Your task to perform on an android device: add a contact in the contacts app Image 0: 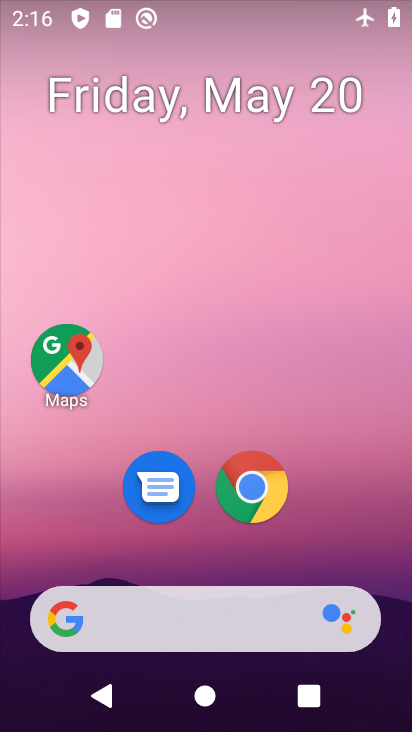
Step 0: drag from (224, 568) to (161, 261)
Your task to perform on an android device: add a contact in the contacts app Image 1: 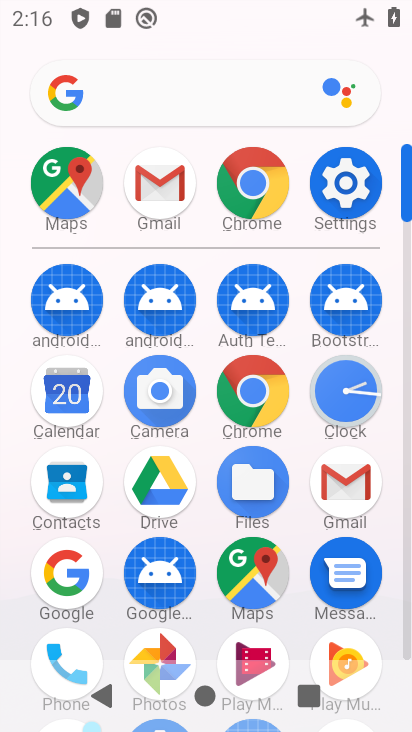
Step 1: click (72, 484)
Your task to perform on an android device: add a contact in the contacts app Image 2: 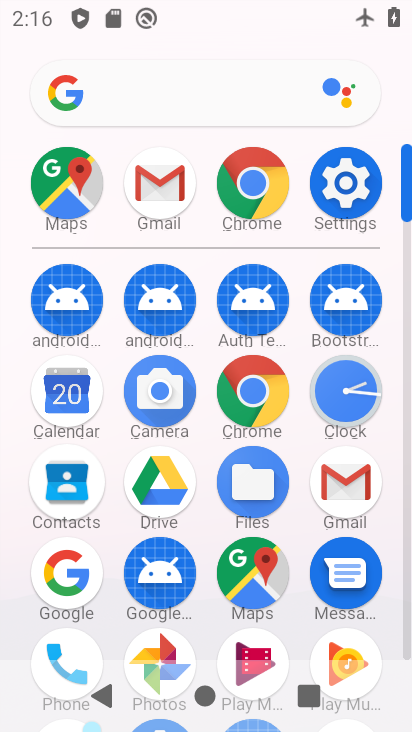
Step 2: click (69, 487)
Your task to perform on an android device: add a contact in the contacts app Image 3: 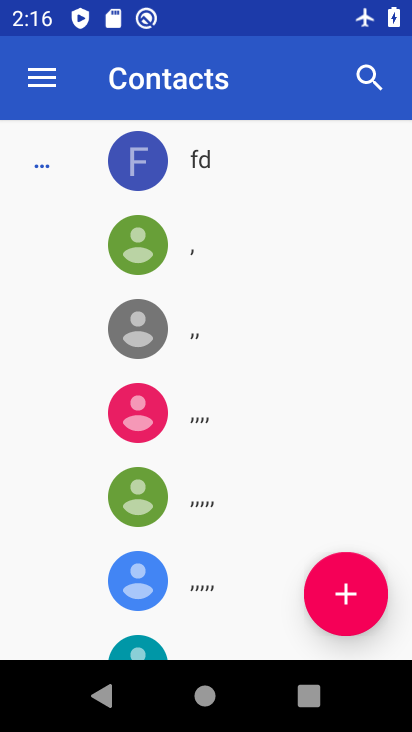
Step 3: click (343, 593)
Your task to perform on an android device: add a contact in the contacts app Image 4: 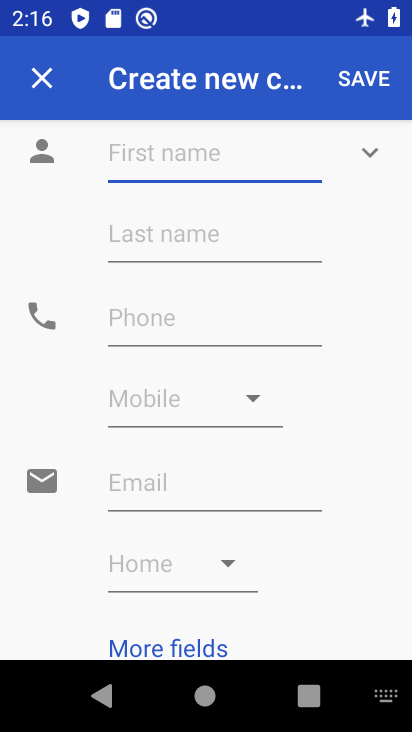
Step 4: type "bjhhhbjhbjhjhbhbas"
Your task to perform on an android device: add a contact in the contacts app Image 5: 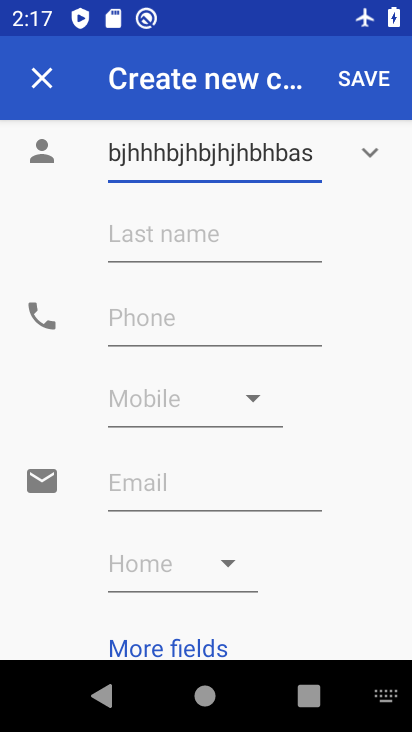
Step 5: click (131, 330)
Your task to perform on an android device: add a contact in the contacts app Image 6: 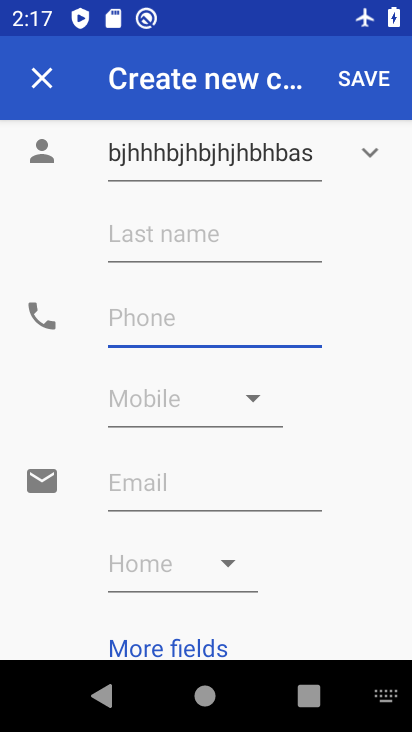
Step 6: type "873873783733798"
Your task to perform on an android device: add a contact in the contacts app Image 7: 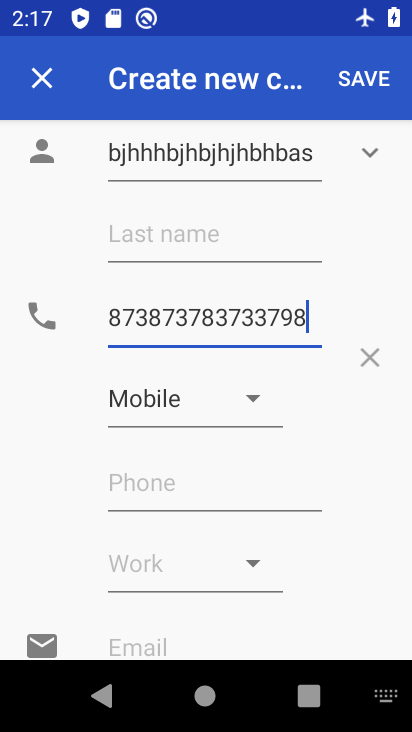
Step 7: click (372, 75)
Your task to perform on an android device: add a contact in the contacts app Image 8: 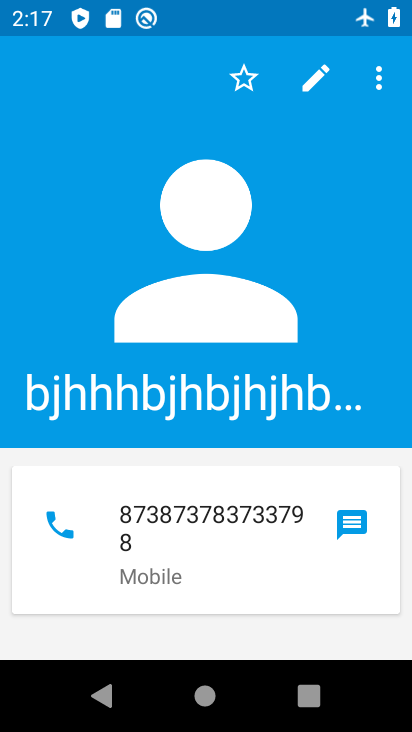
Step 8: task complete